Your task to perform on an android device: snooze an email in the gmail app Image 0: 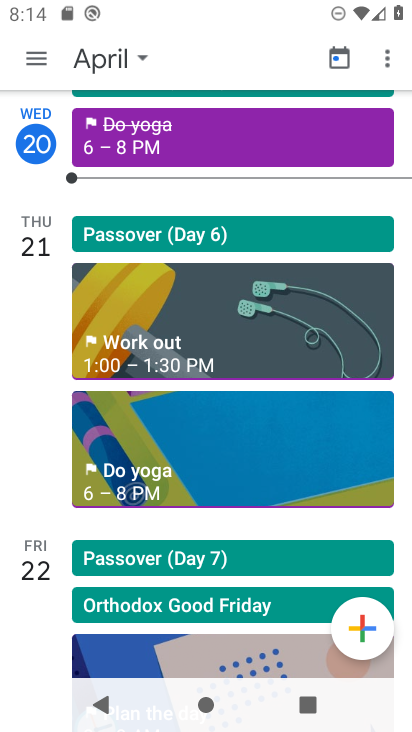
Step 0: press home button
Your task to perform on an android device: snooze an email in the gmail app Image 1: 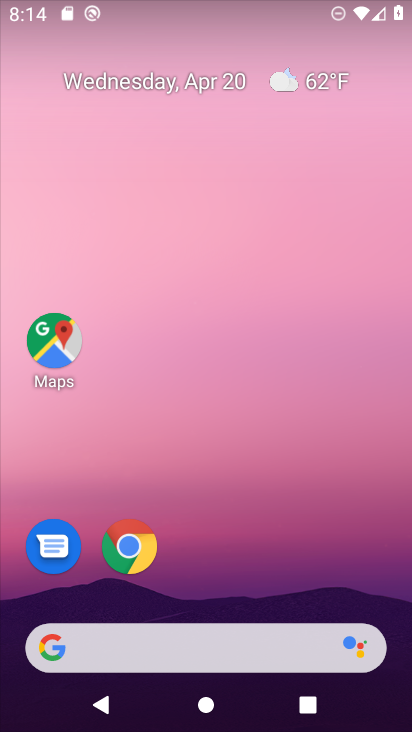
Step 1: drag from (274, 521) to (245, 112)
Your task to perform on an android device: snooze an email in the gmail app Image 2: 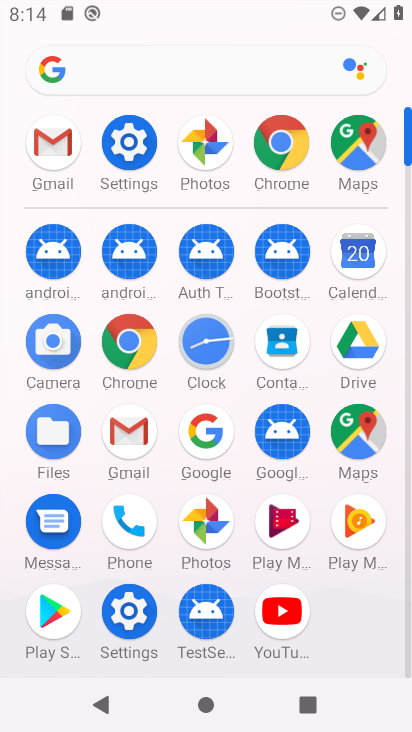
Step 2: click (53, 150)
Your task to perform on an android device: snooze an email in the gmail app Image 3: 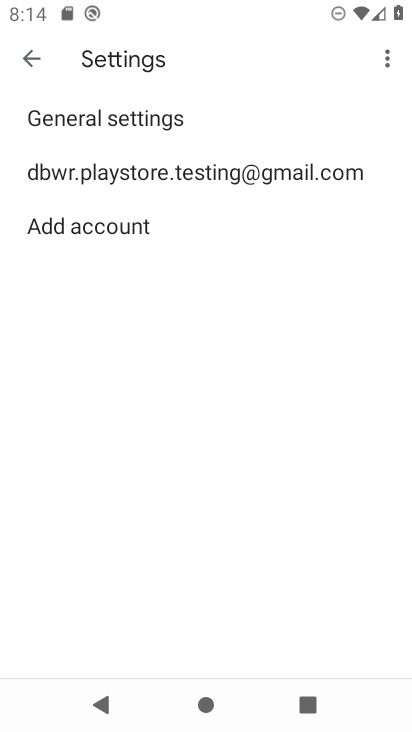
Step 3: click (34, 55)
Your task to perform on an android device: snooze an email in the gmail app Image 4: 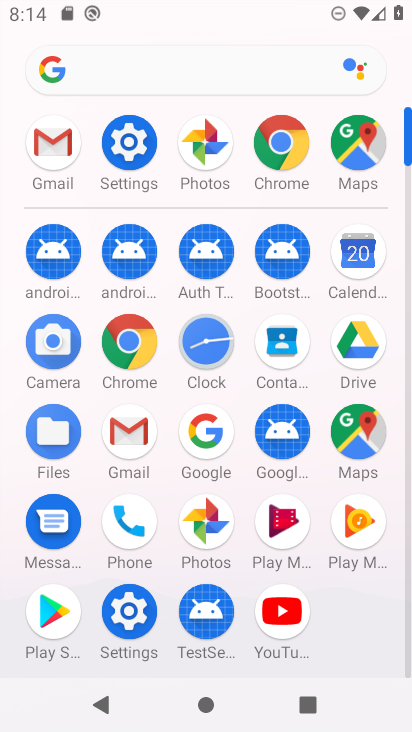
Step 4: click (55, 146)
Your task to perform on an android device: snooze an email in the gmail app Image 5: 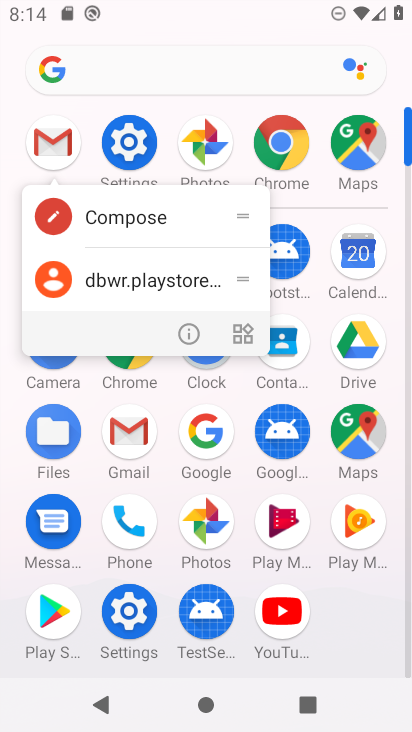
Step 5: click (55, 146)
Your task to perform on an android device: snooze an email in the gmail app Image 6: 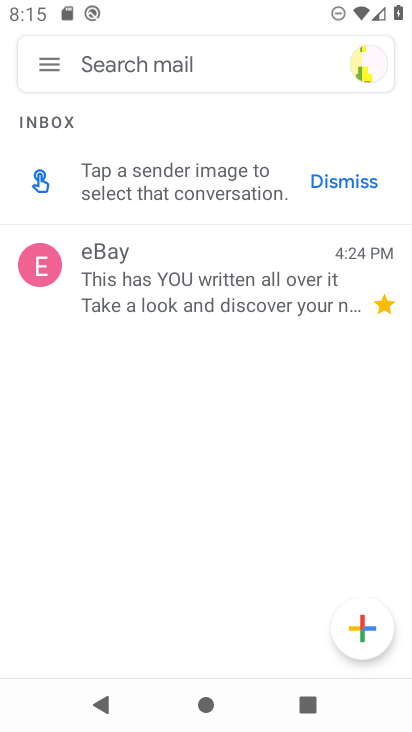
Step 6: click (215, 280)
Your task to perform on an android device: snooze an email in the gmail app Image 7: 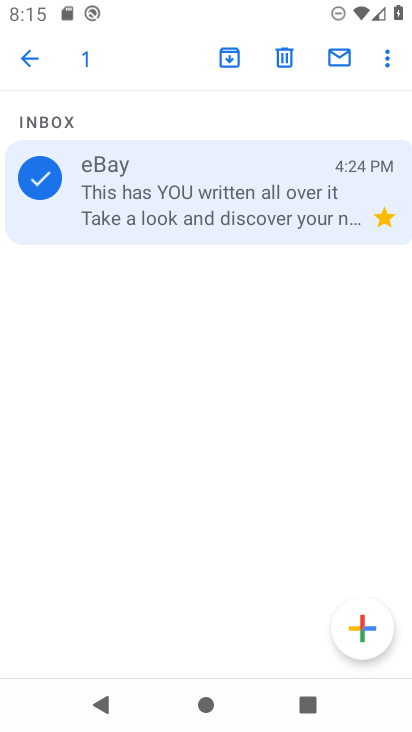
Step 7: click (386, 60)
Your task to perform on an android device: snooze an email in the gmail app Image 8: 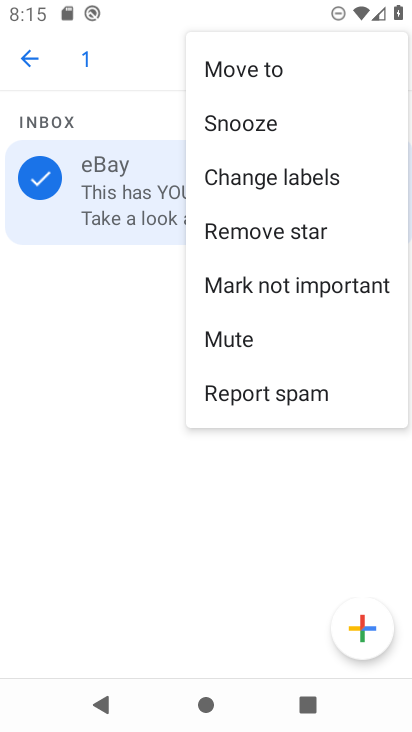
Step 8: click (281, 120)
Your task to perform on an android device: snooze an email in the gmail app Image 9: 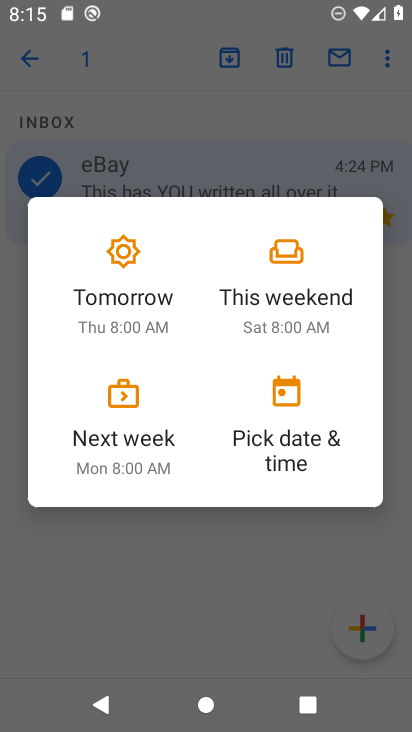
Step 9: click (137, 286)
Your task to perform on an android device: snooze an email in the gmail app Image 10: 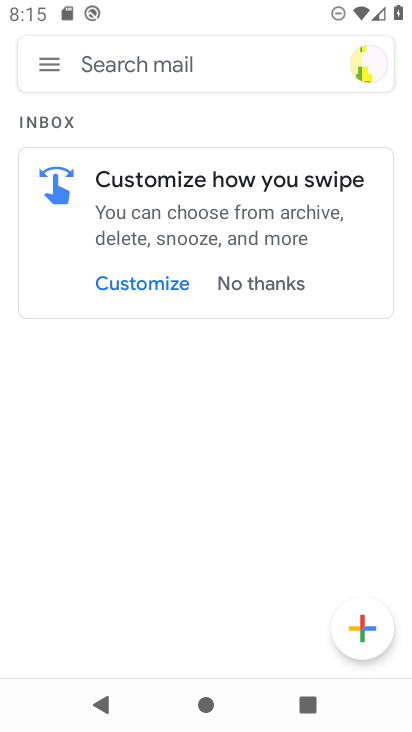
Step 10: click (249, 281)
Your task to perform on an android device: snooze an email in the gmail app Image 11: 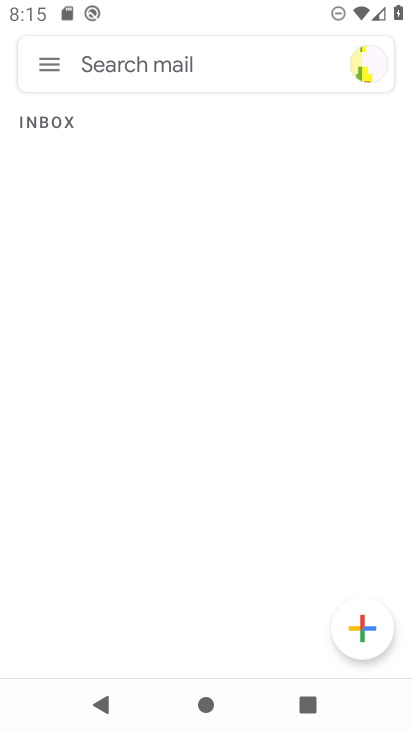
Step 11: task complete